Your task to perform on an android device: Open maps Image 0: 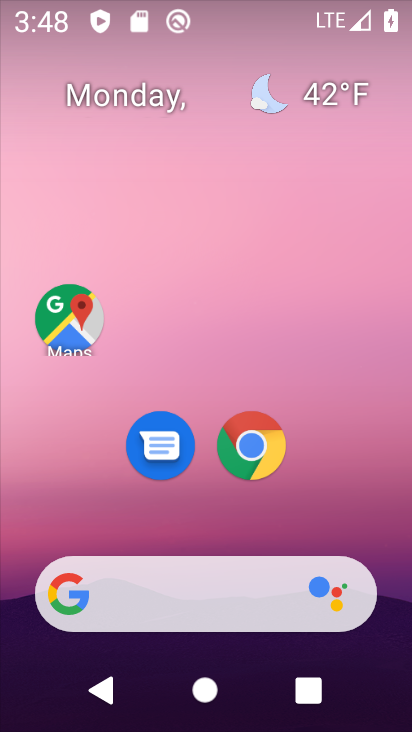
Step 0: drag from (17, 475) to (173, 74)
Your task to perform on an android device: Open maps Image 1: 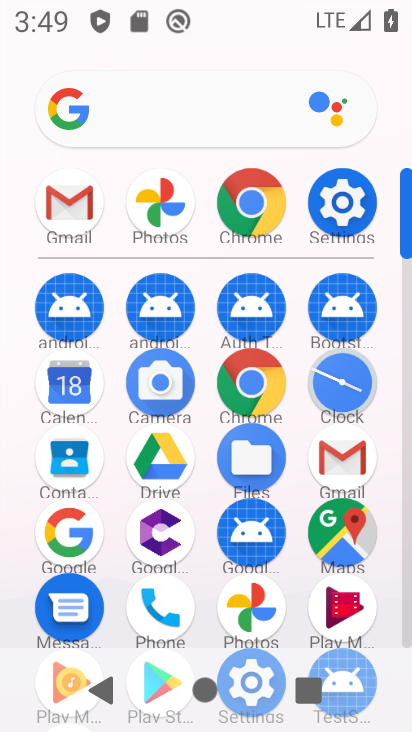
Step 1: click (339, 541)
Your task to perform on an android device: Open maps Image 2: 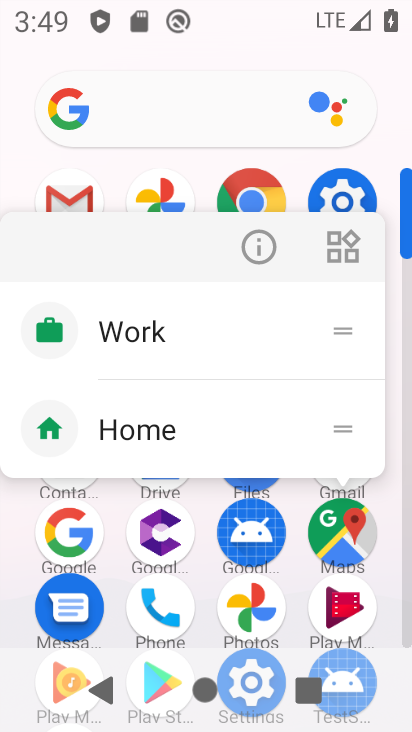
Step 2: click (339, 541)
Your task to perform on an android device: Open maps Image 3: 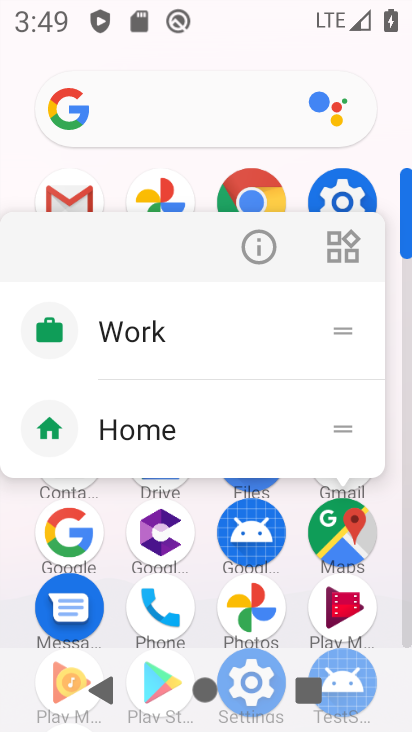
Step 3: click (339, 541)
Your task to perform on an android device: Open maps Image 4: 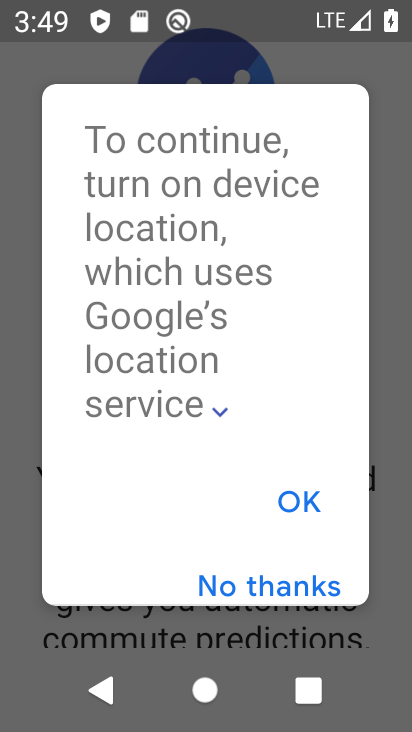
Step 4: task complete